Your task to perform on an android device: Toggle the flashlight Image 0: 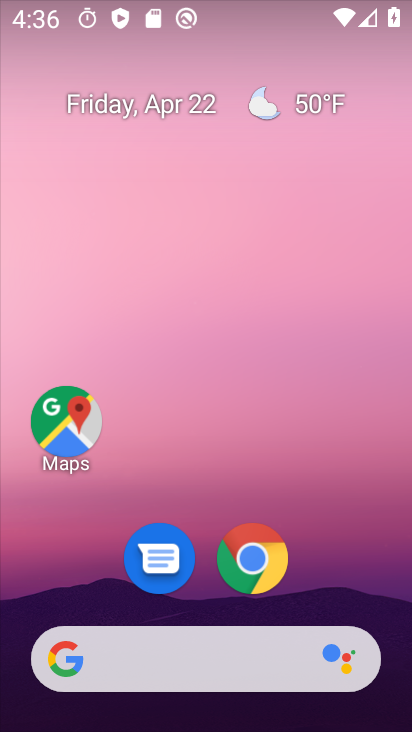
Step 0: drag from (334, 596) to (246, 135)
Your task to perform on an android device: Toggle the flashlight Image 1: 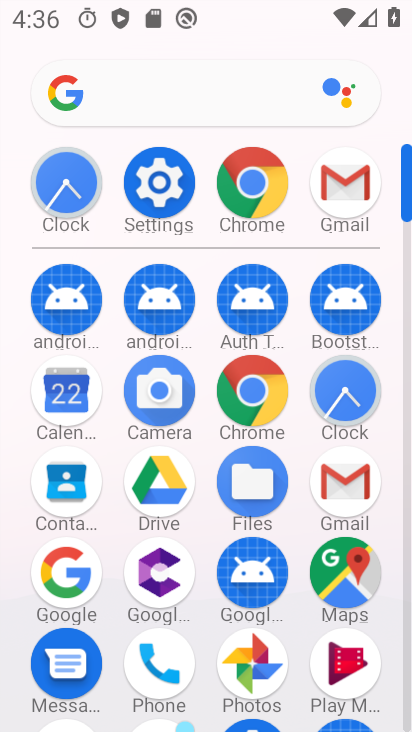
Step 1: drag from (304, 593) to (325, 391)
Your task to perform on an android device: Toggle the flashlight Image 2: 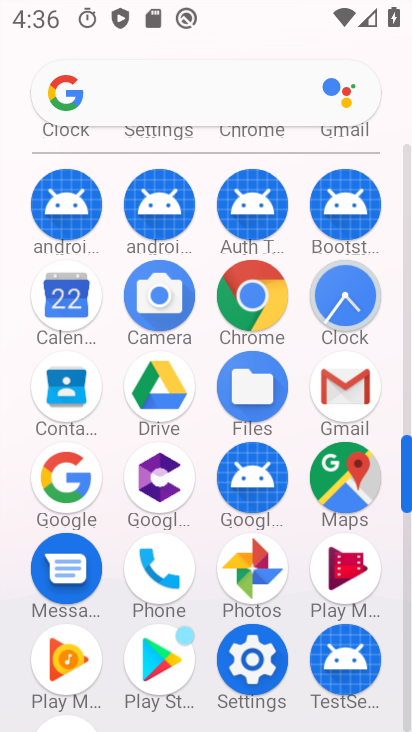
Step 2: click (258, 635)
Your task to perform on an android device: Toggle the flashlight Image 3: 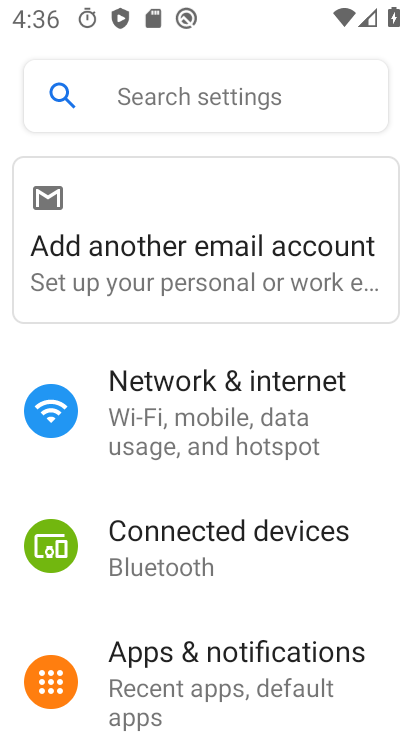
Step 3: task complete